Your task to perform on an android device: Open the stopwatch Image 0: 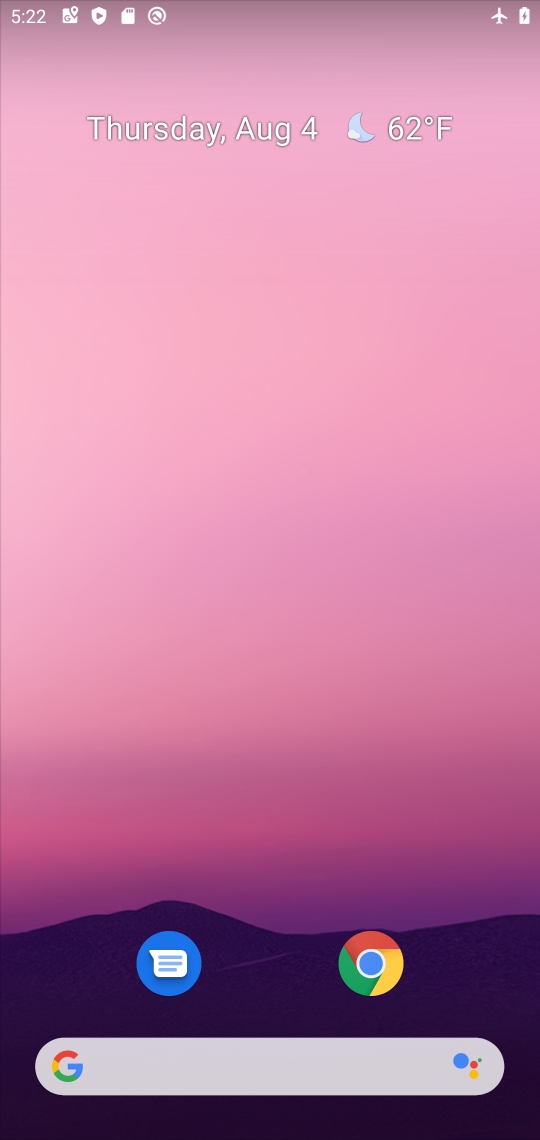
Step 0: drag from (257, 894) to (322, 211)
Your task to perform on an android device: Open the stopwatch Image 1: 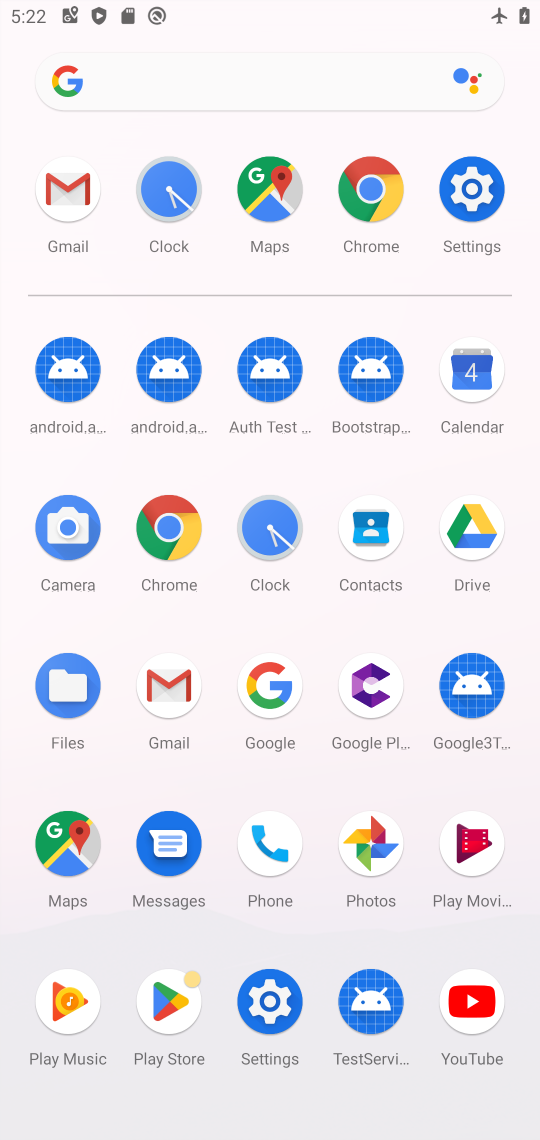
Step 1: click (266, 535)
Your task to perform on an android device: Open the stopwatch Image 2: 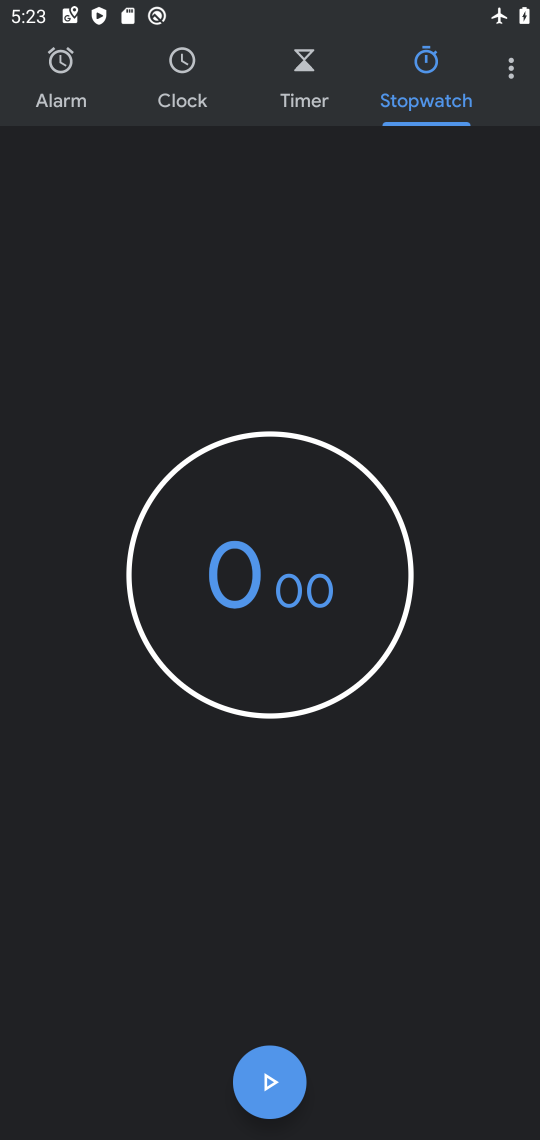
Step 2: task complete